Your task to perform on an android device: move an email to a new category in the gmail app Image 0: 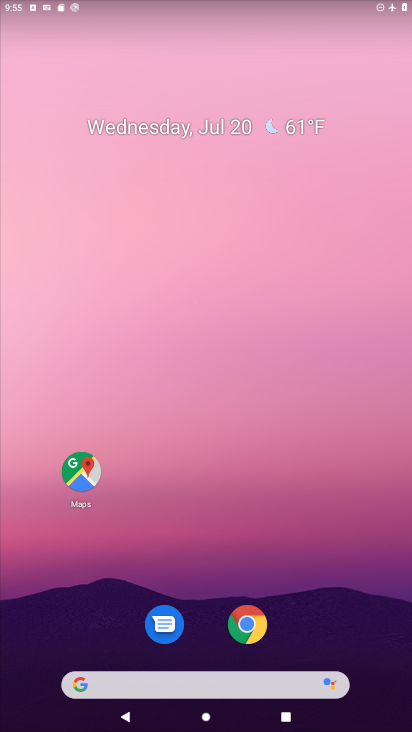
Step 0: drag from (201, 581) to (260, 112)
Your task to perform on an android device: move an email to a new category in the gmail app Image 1: 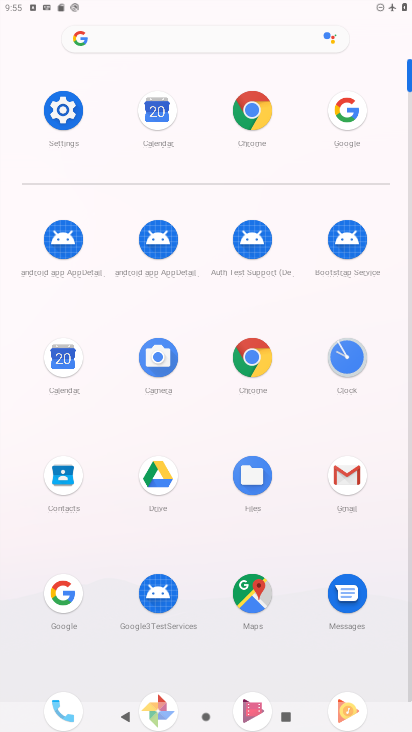
Step 1: click (333, 471)
Your task to perform on an android device: move an email to a new category in the gmail app Image 2: 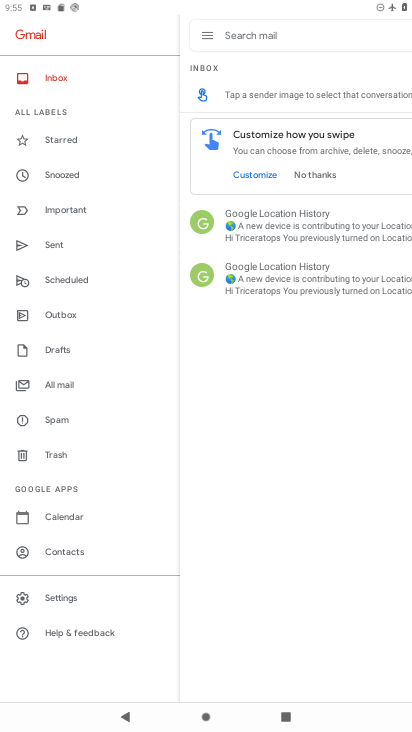
Step 2: click (280, 242)
Your task to perform on an android device: move an email to a new category in the gmail app Image 3: 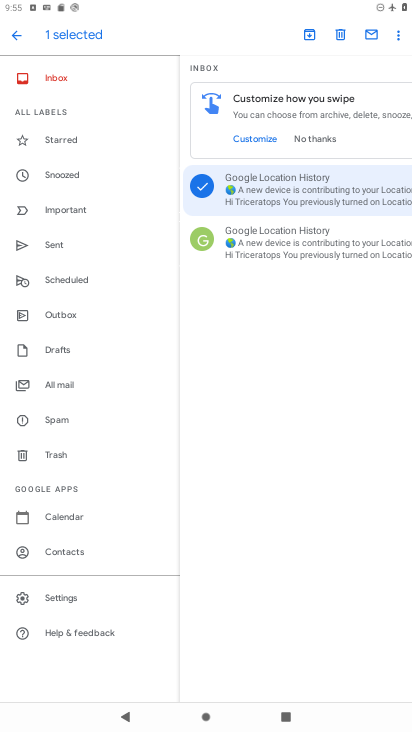
Step 3: click (402, 34)
Your task to perform on an android device: move an email to a new category in the gmail app Image 4: 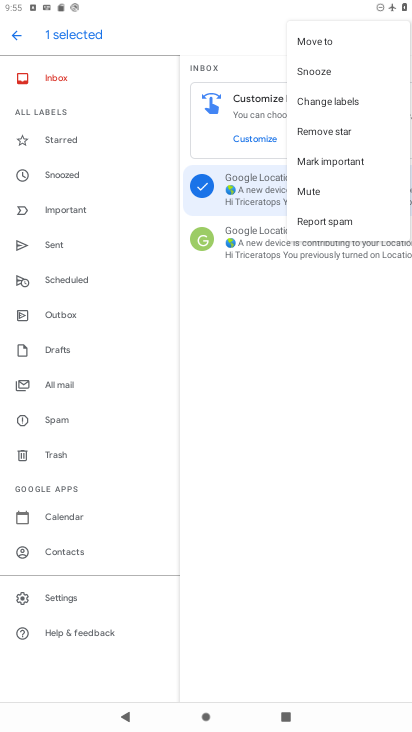
Step 4: click (350, 41)
Your task to perform on an android device: move an email to a new category in the gmail app Image 5: 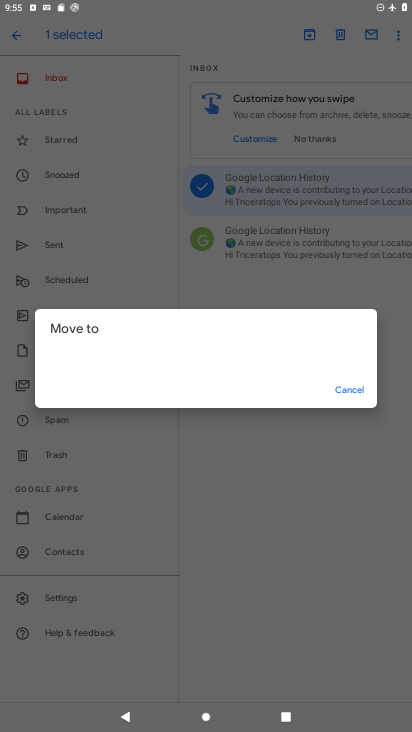
Step 5: click (341, 386)
Your task to perform on an android device: move an email to a new category in the gmail app Image 6: 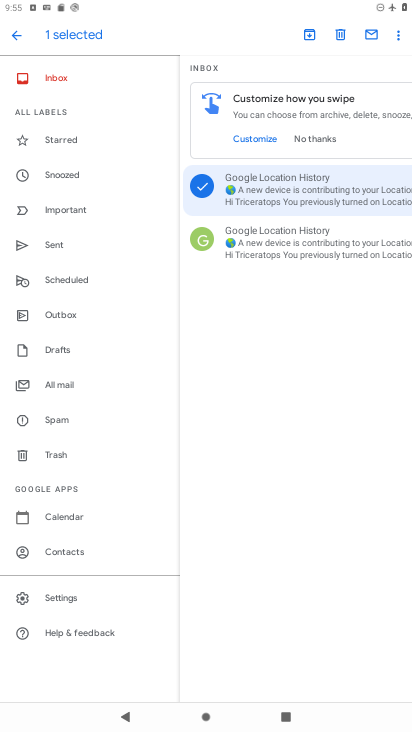
Step 6: task complete